Your task to perform on an android device: toggle notifications settings in the gmail app Image 0: 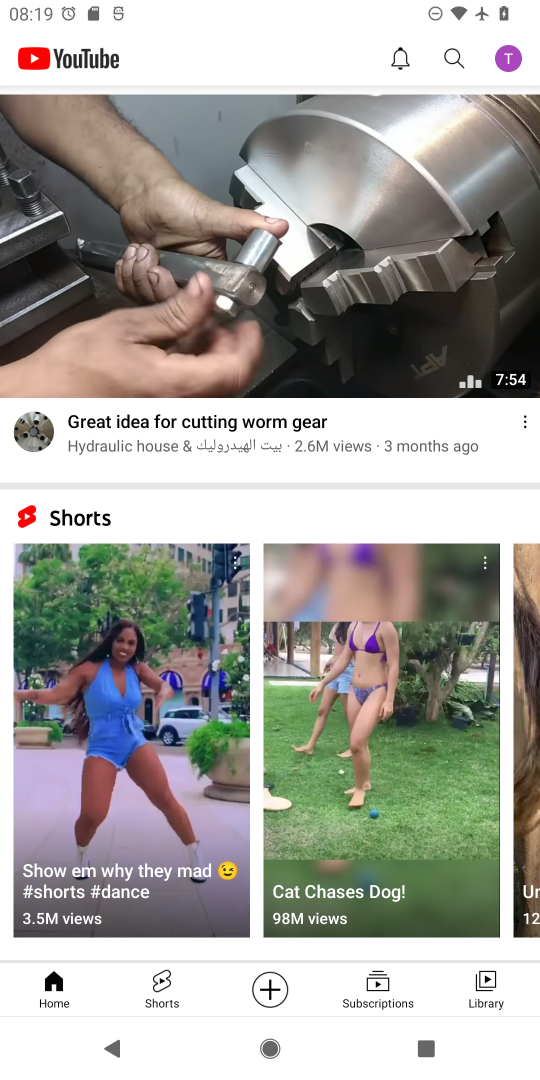
Step 0: press home button
Your task to perform on an android device: toggle notifications settings in the gmail app Image 1: 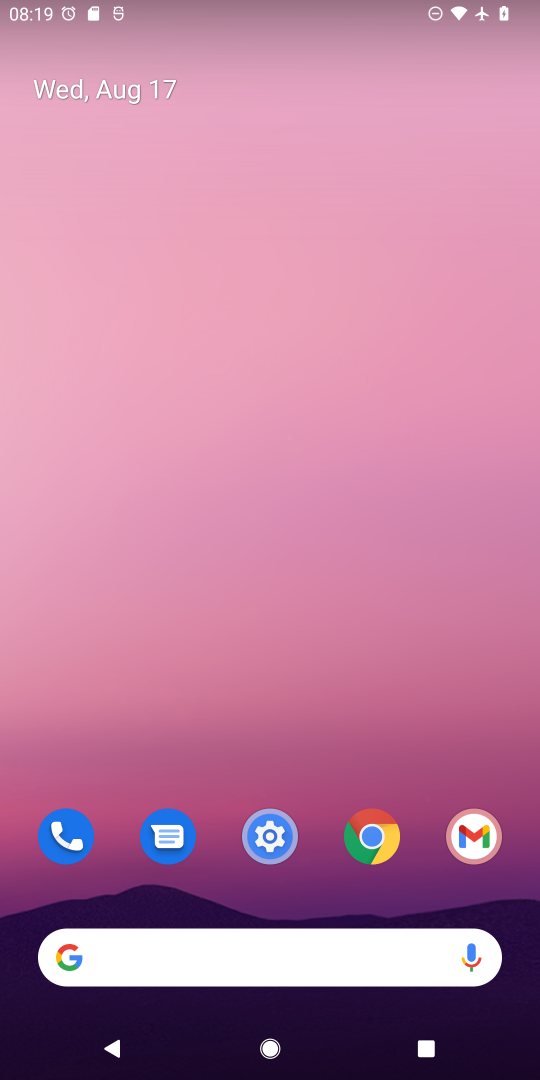
Step 1: drag from (328, 884) to (314, 273)
Your task to perform on an android device: toggle notifications settings in the gmail app Image 2: 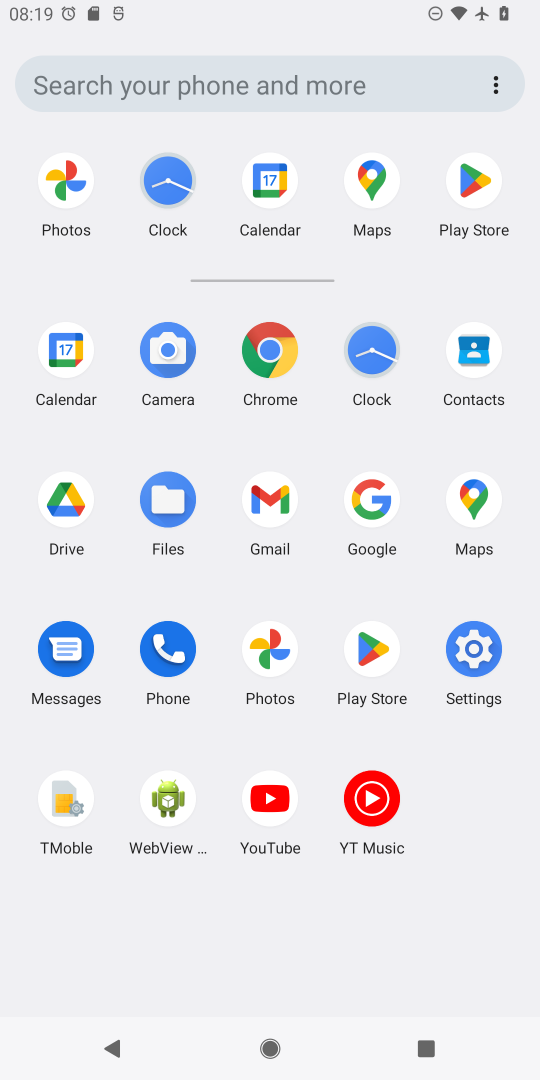
Step 2: click (247, 496)
Your task to perform on an android device: toggle notifications settings in the gmail app Image 3: 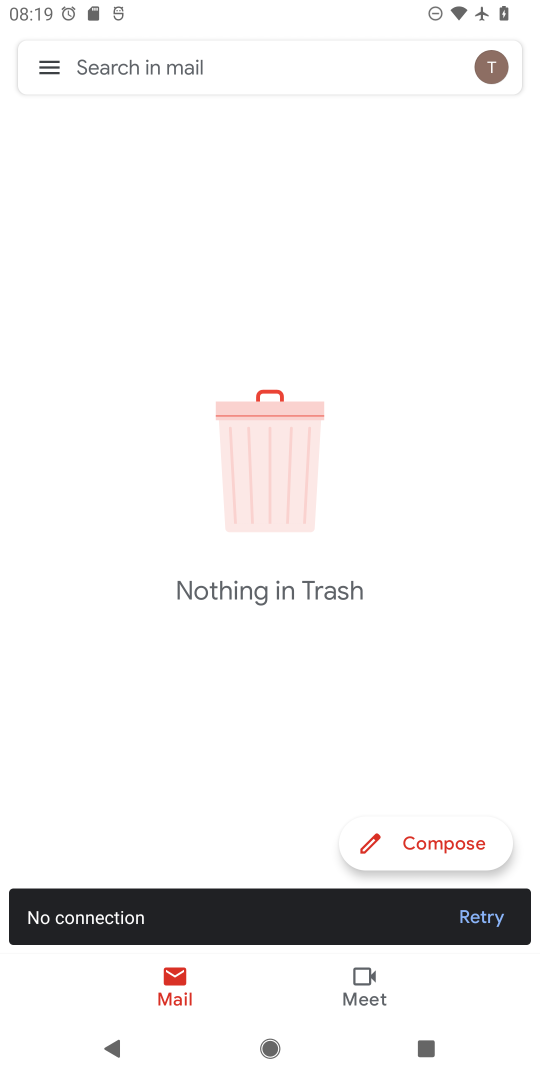
Step 3: click (54, 62)
Your task to perform on an android device: toggle notifications settings in the gmail app Image 4: 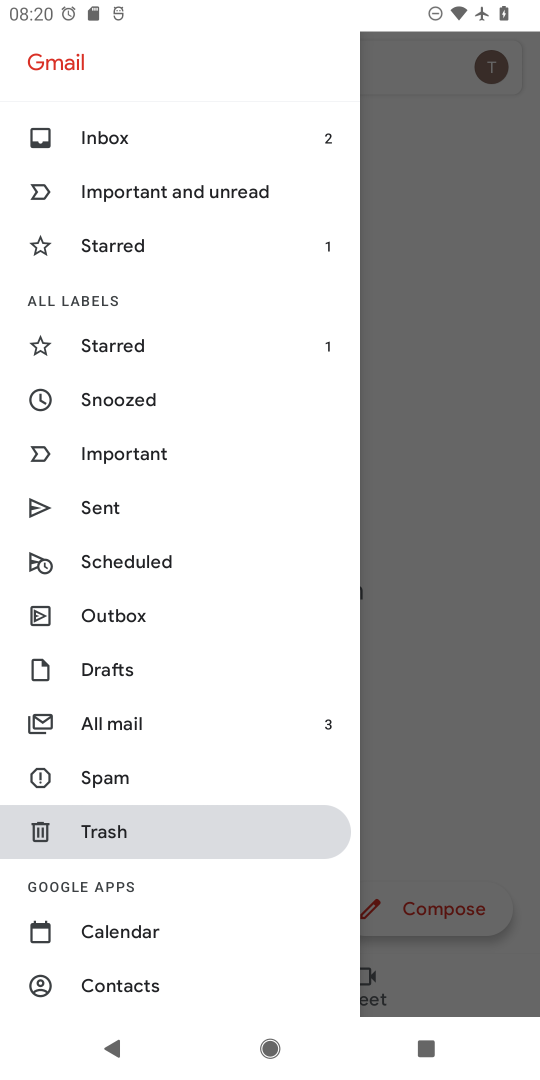
Step 4: drag from (153, 944) to (225, 444)
Your task to perform on an android device: toggle notifications settings in the gmail app Image 5: 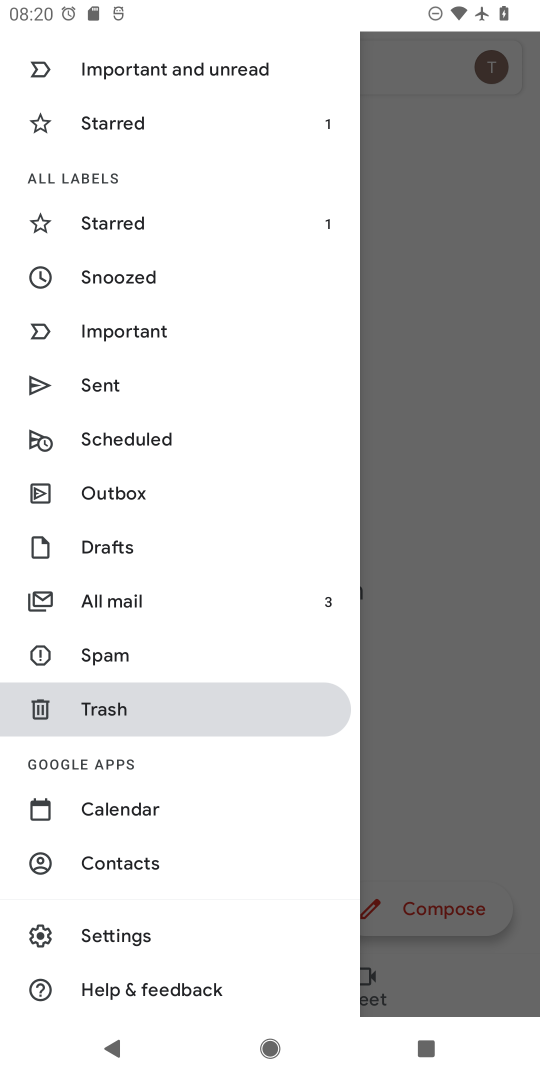
Step 5: click (92, 925)
Your task to perform on an android device: toggle notifications settings in the gmail app Image 6: 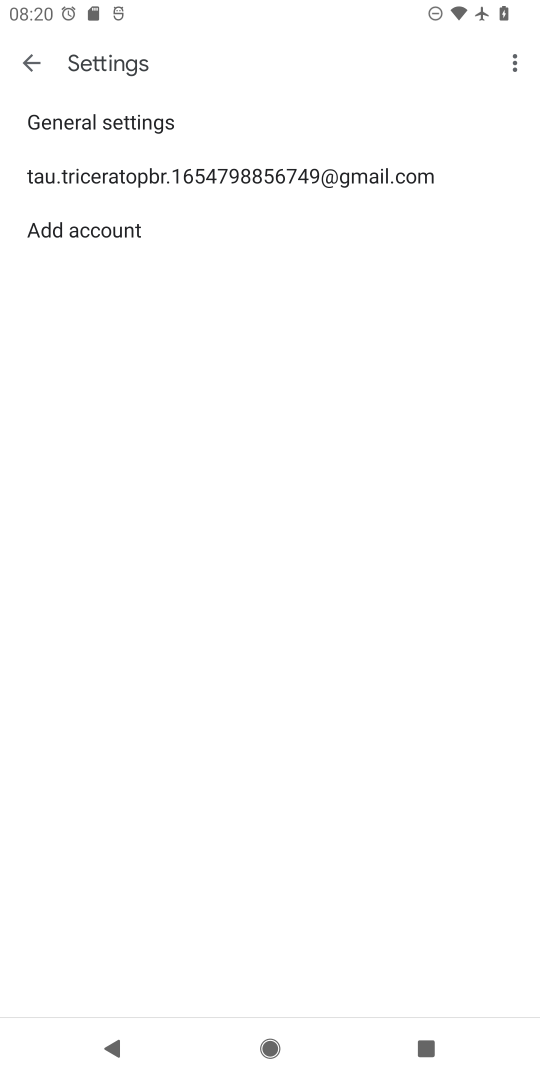
Step 6: click (208, 177)
Your task to perform on an android device: toggle notifications settings in the gmail app Image 7: 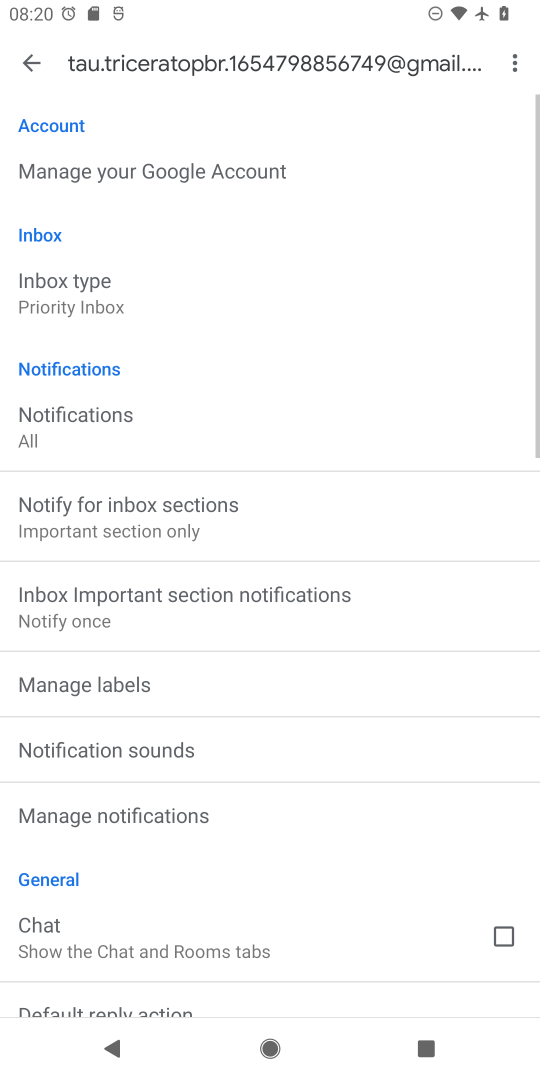
Step 7: click (103, 435)
Your task to perform on an android device: toggle notifications settings in the gmail app Image 8: 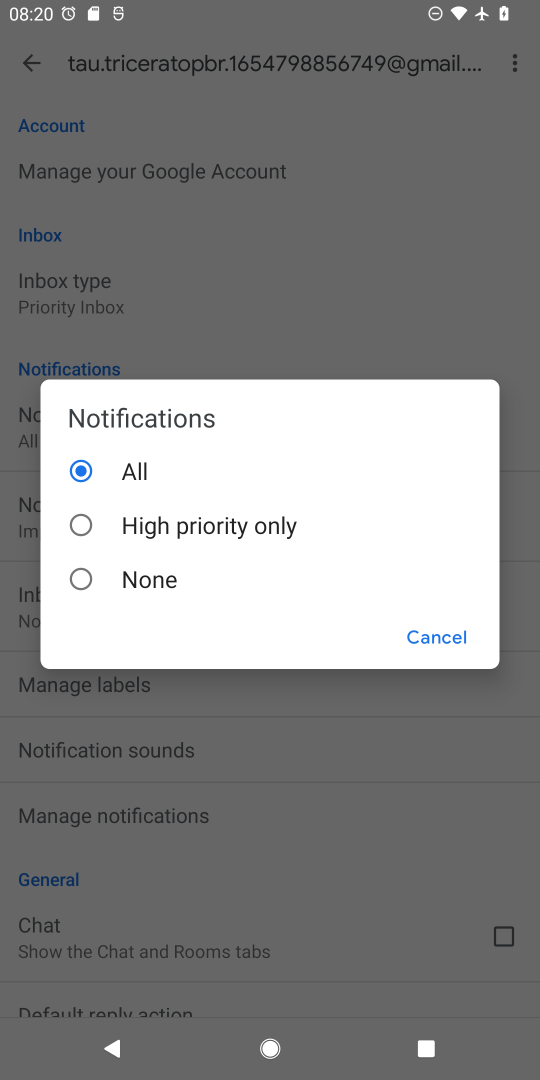
Step 8: click (159, 582)
Your task to perform on an android device: toggle notifications settings in the gmail app Image 9: 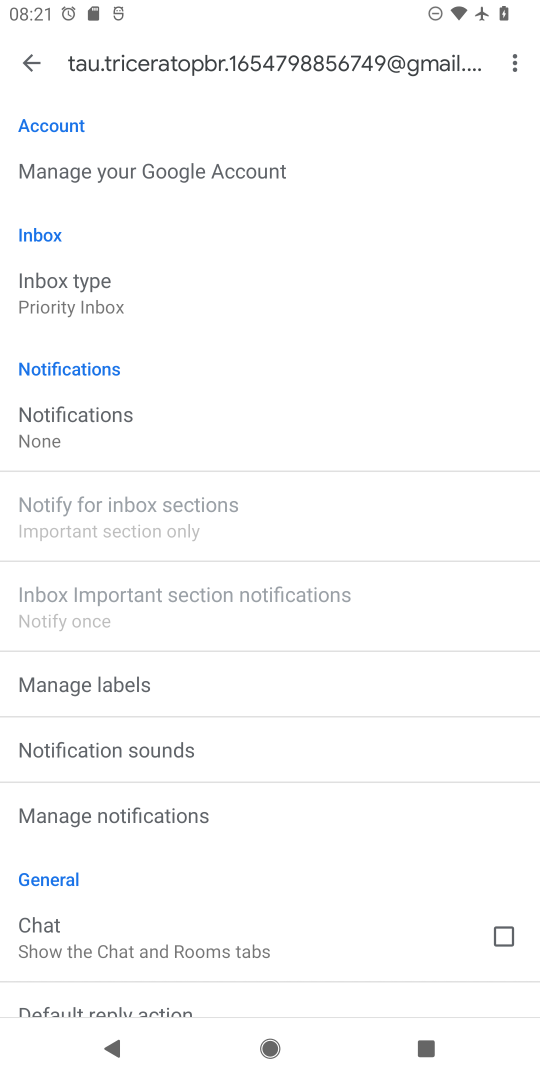
Step 9: task complete